Your task to perform on an android device: Open Chrome and go to the settings page Image 0: 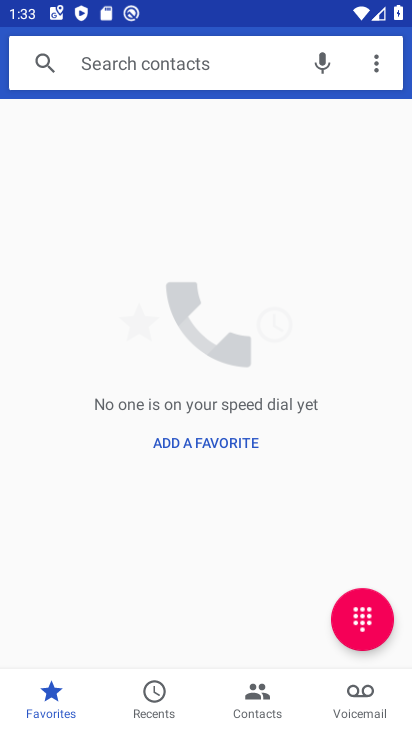
Step 0: press back button
Your task to perform on an android device: Open Chrome and go to the settings page Image 1: 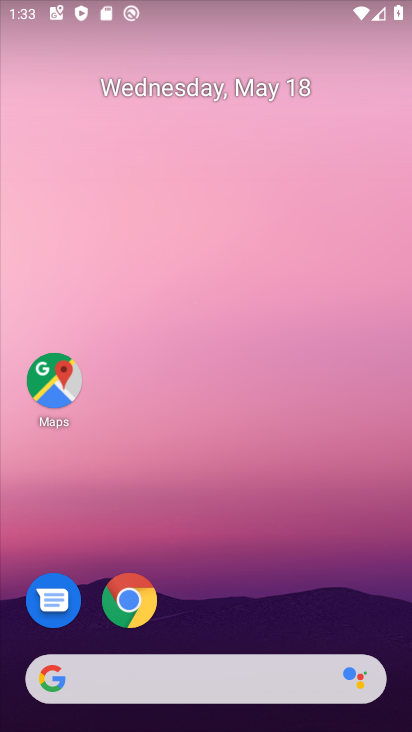
Step 1: click (130, 600)
Your task to perform on an android device: Open Chrome and go to the settings page Image 2: 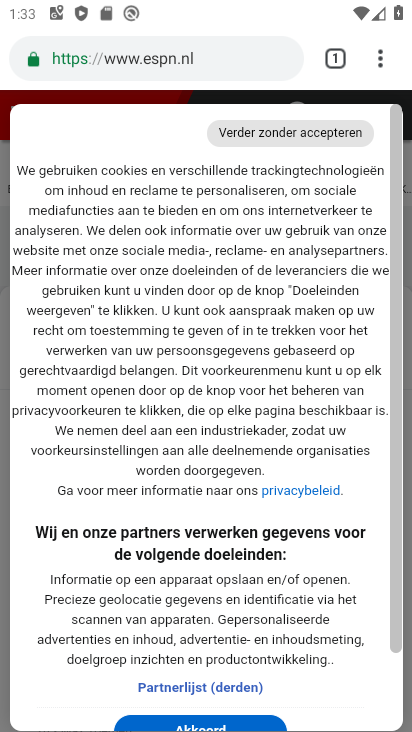
Step 2: click (382, 59)
Your task to perform on an android device: Open Chrome and go to the settings page Image 3: 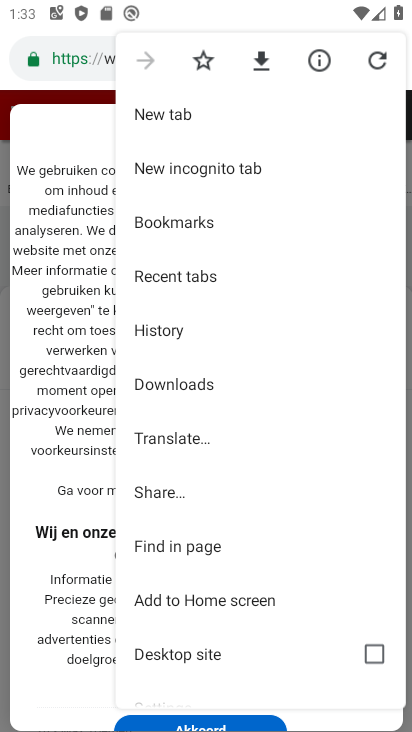
Step 3: drag from (162, 509) to (207, 438)
Your task to perform on an android device: Open Chrome and go to the settings page Image 4: 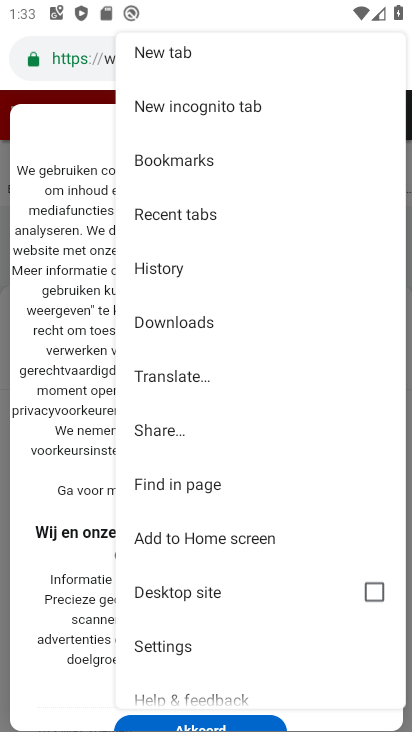
Step 4: drag from (184, 570) to (246, 494)
Your task to perform on an android device: Open Chrome and go to the settings page Image 5: 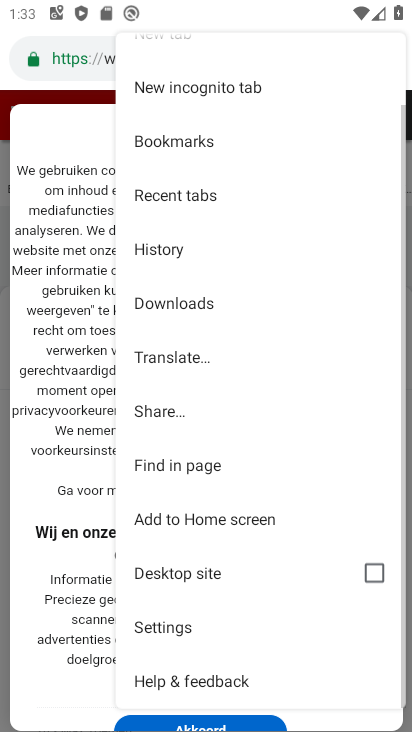
Step 5: click (159, 622)
Your task to perform on an android device: Open Chrome and go to the settings page Image 6: 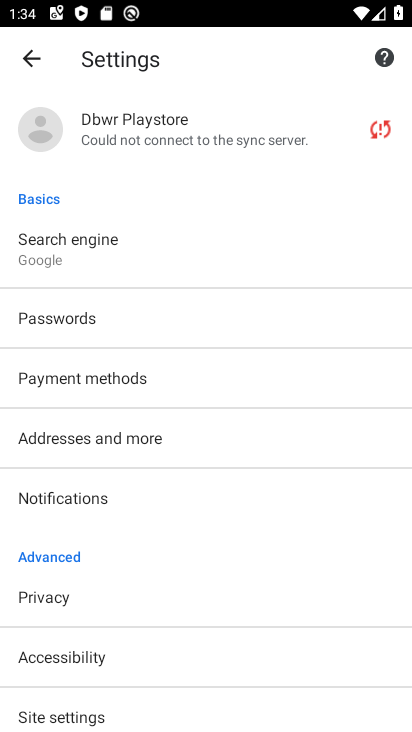
Step 6: task complete